Your task to perform on an android device: turn off translation in the chrome app Image 0: 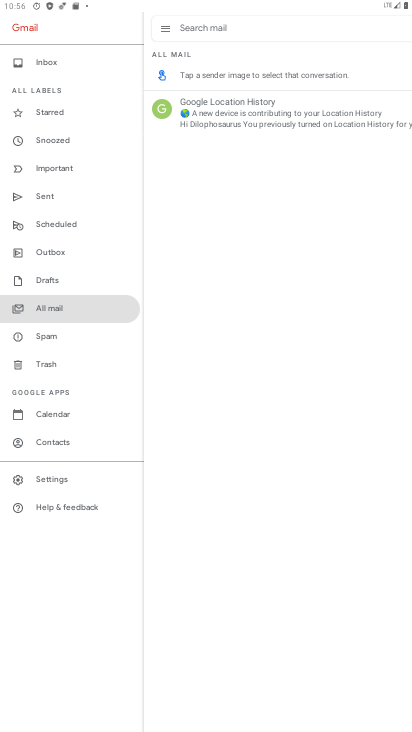
Step 0: press home button
Your task to perform on an android device: turn off translation in the chrome app Image 1: 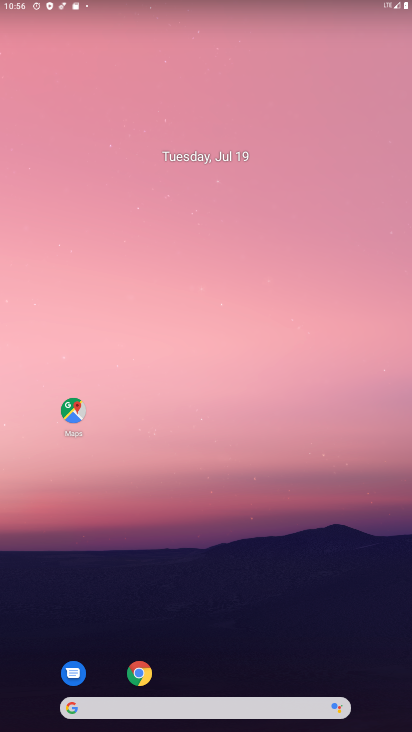
Step 1: click (150, 675)
Your task to perform on an android device: turn off translation in the chrome app Image 2: 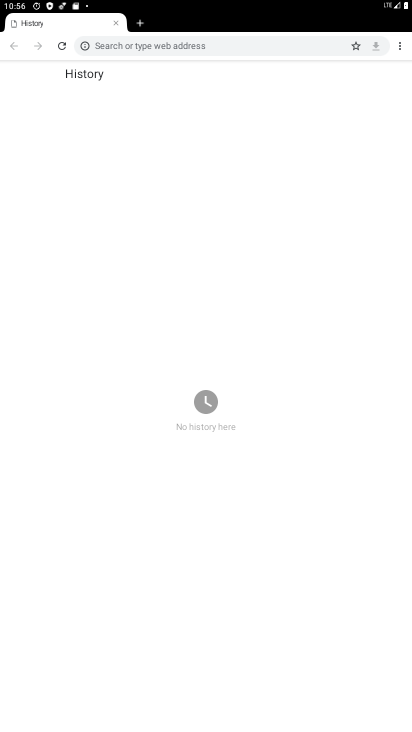
Step 2: drag from (397, 38) to (345, 227)
Your task to perform on an android device: turn off translation in the chrome app Image 3: 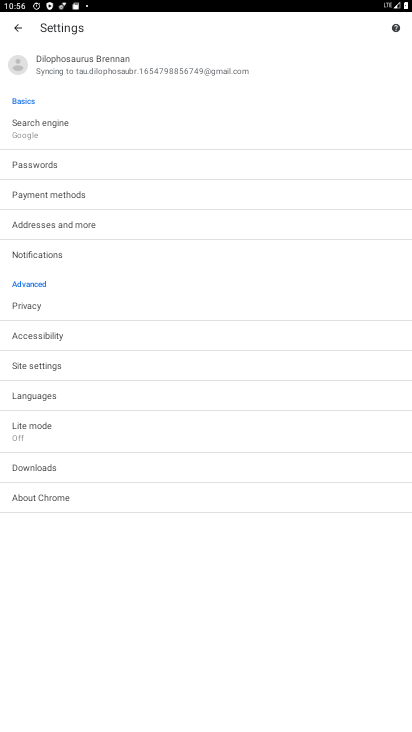
Step 3: click (82, 391)
Your task to perform on an android device: turn off translation in the chrome app Image 4: 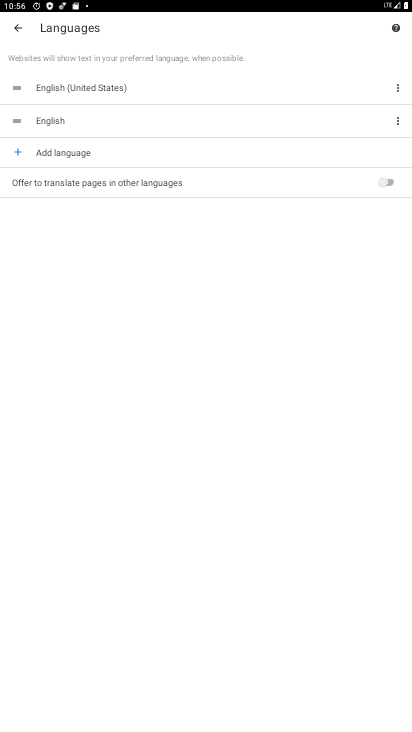
Step 4: task complete